Your task to perform on an android device: toggle translation in the chrome app Image 0: 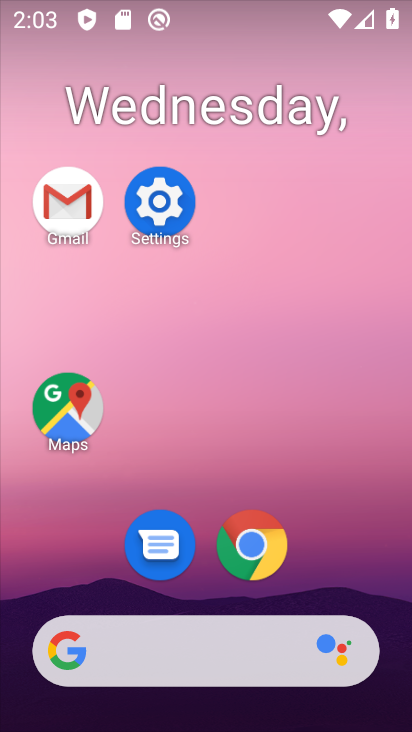
Step 0: click (271, 537)
Your task to perform on an android device: toggle translation in the chrome app Image 1: 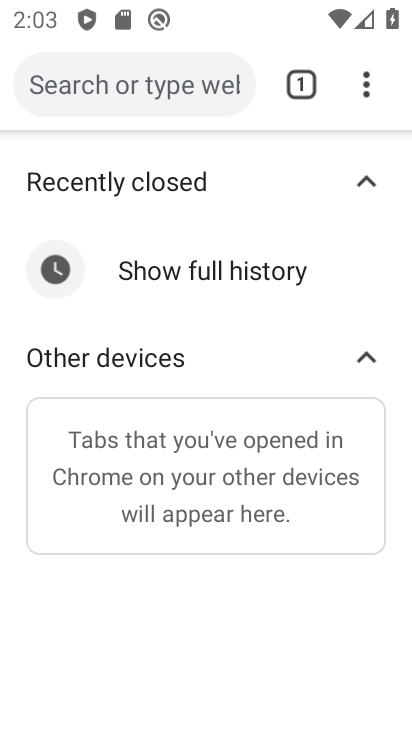
Step 1: click (364, 75)
Your task to perform on an android device: toggle translation in the chrome app Image 2: 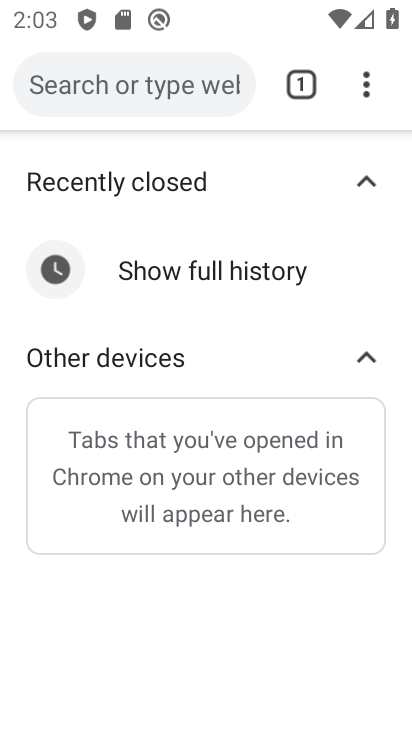
Step 2: click (359, 69)
Your task to perform on an android device: toggle translation in the chrome app Image 3: 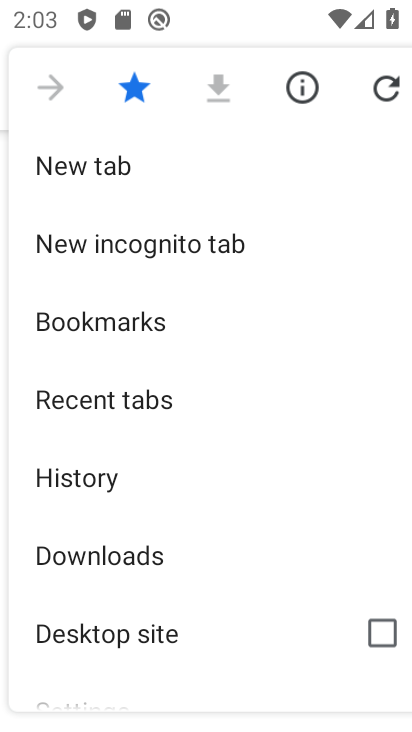
Step 3: drag from (170, 599) to (296, 162)
Your task to perform on an android device: toggle translation in the chrome app Image 4: 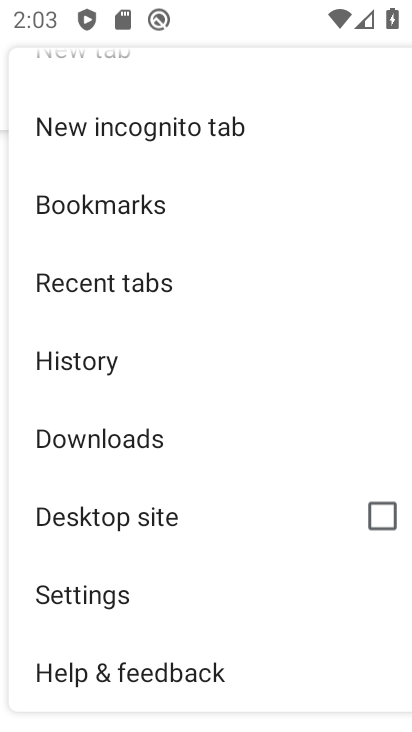
Step 4: click (158, 582)
Your task to perform on an android device: toggle translation in the chrome app Image 5: 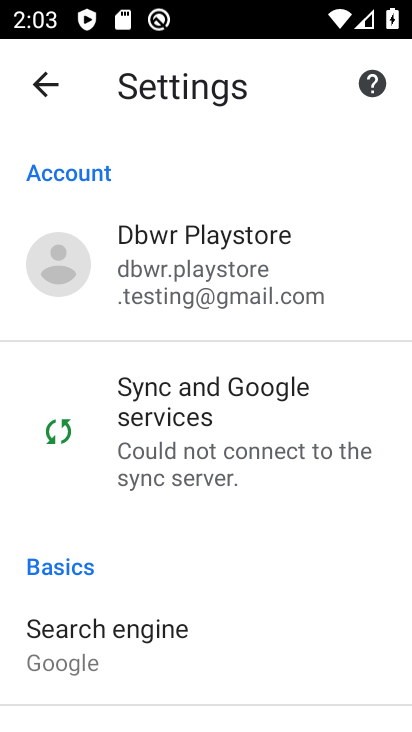
Step 5: drag from (247, 622) to (332, 154)
Your task to perform on an android device: toggle translation in the chrome app Image 6: 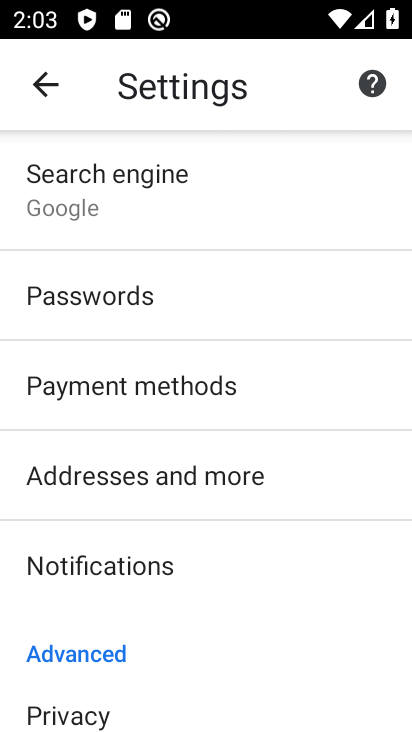
Step 6: drag from (217, 613) to (298, 209)
Your task to perform on an android device: toggle translation in the chrome app Image 7: 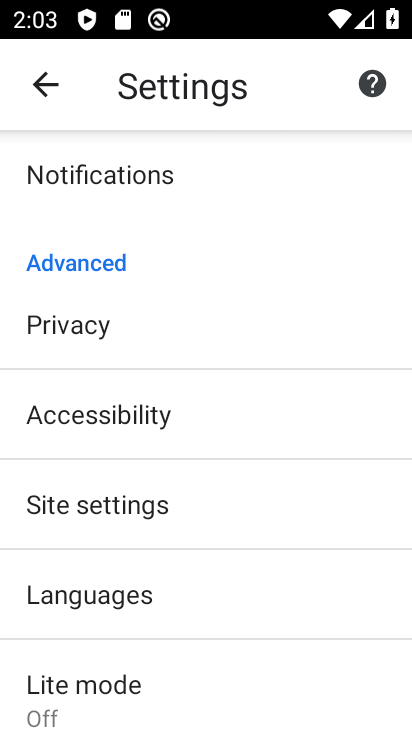
Step 7: drag from (179, 635) to (289, 282)
Your task to perform on an android device: toggle translation in the chrome app Image 8: 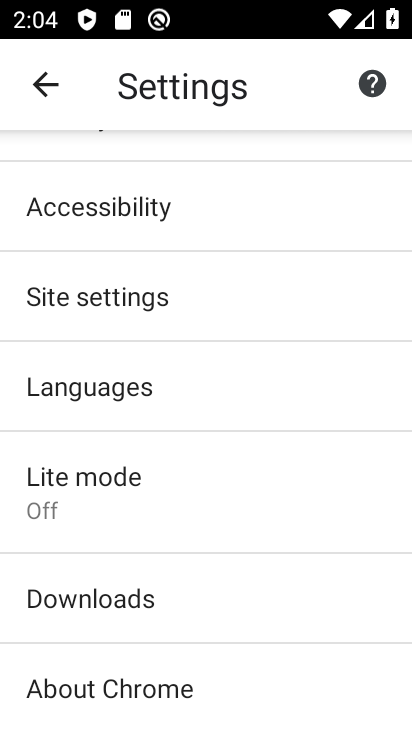
Step 8: click (272, 380)
Your task to perform on an android device: toggle translation in the chrome app Image 9: 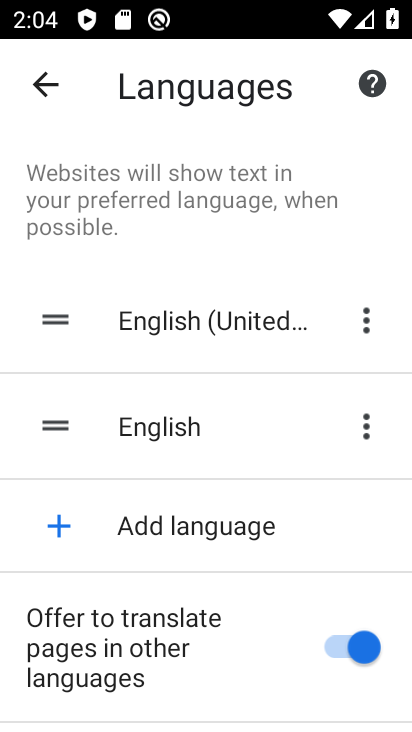
Step 9: click (330, 635)
Your task to perform on an android device: toggle translation in the chrome app Image 10: 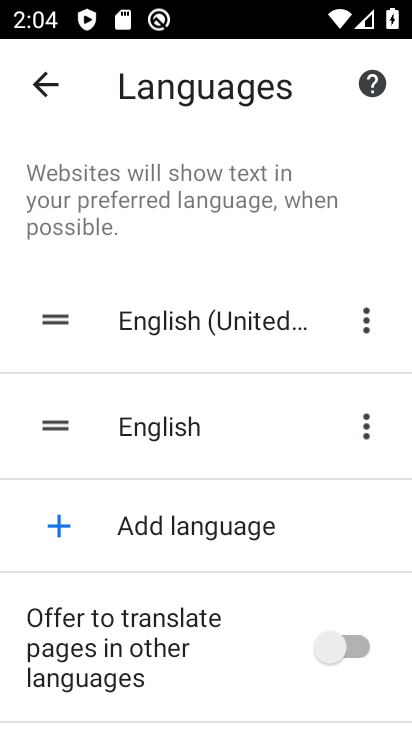
Step 10: task complete